Your task to perform on an android device: Go to sound settings Image 0: 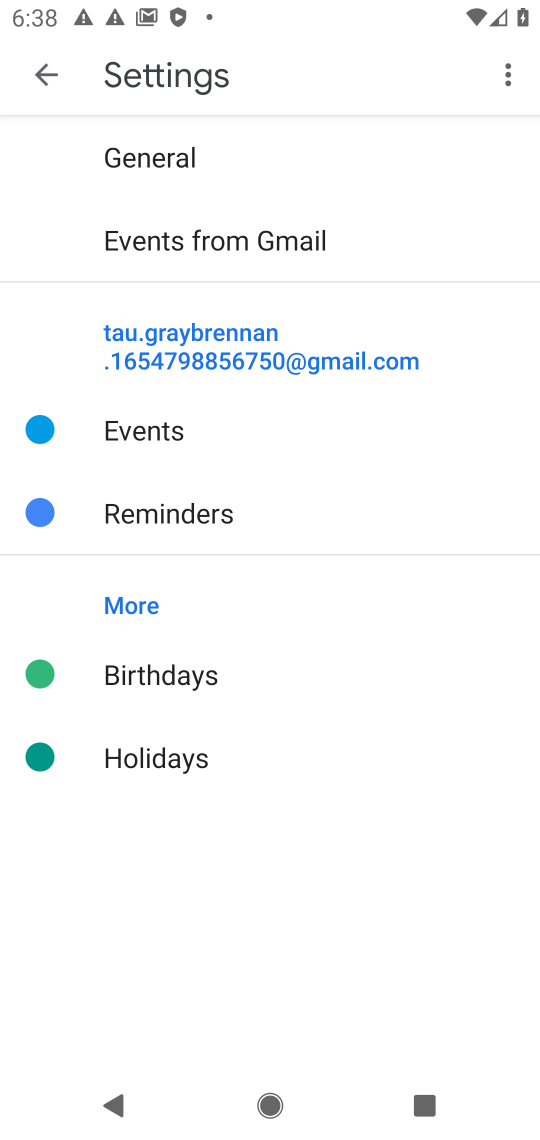
Step 0: press home button
Your task to perform on an android device: Go to sound settings Image 1: 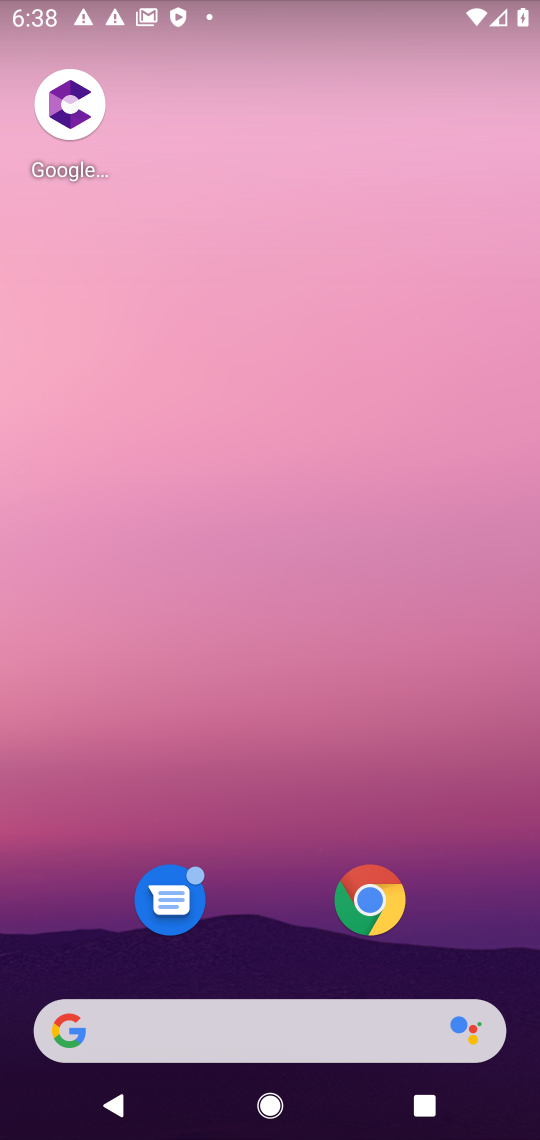
Step 1: drag from (162, 506) to (142, 140)
Your task to perform on an android device: Go to sound settings Image 2: 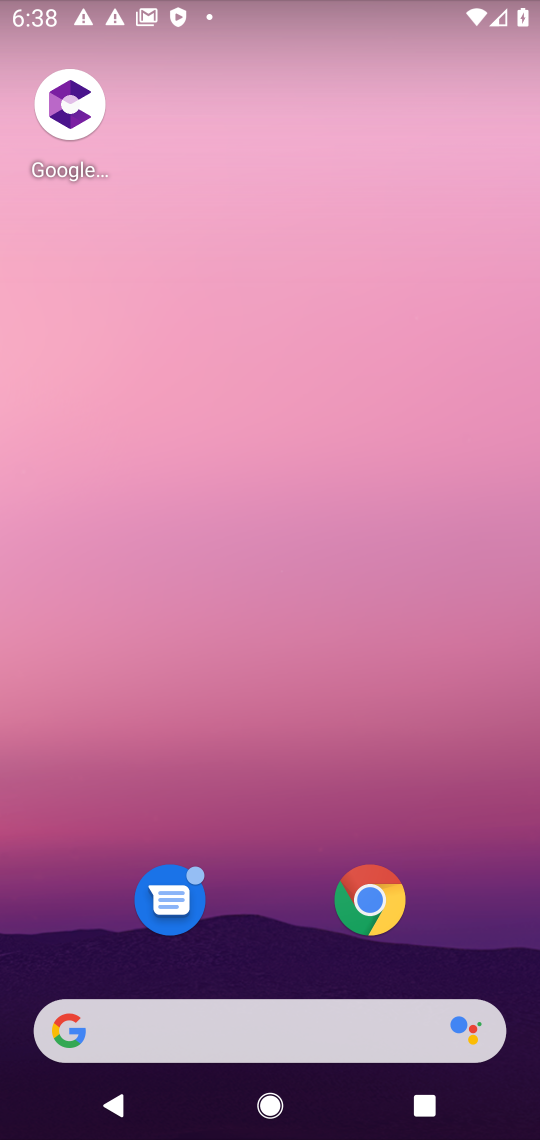
Step 2: drag from (290, 926) to (237, 173)
Your task to perform on an android device: Go to sound settings Image 3: 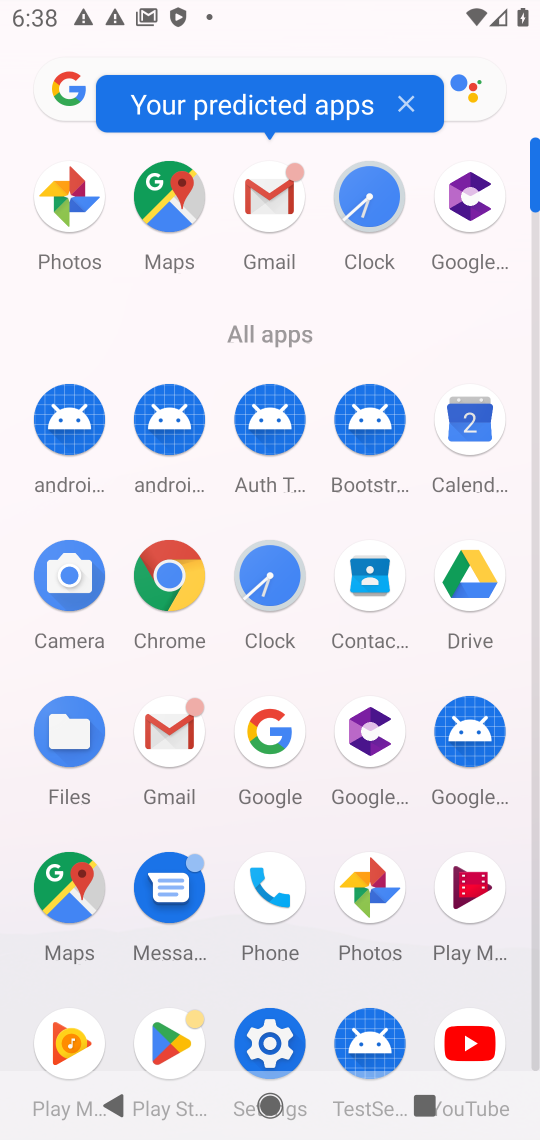
Step 3: click (279, 1042)
Your task to perform on an android device: Go to sound settings Image 4: 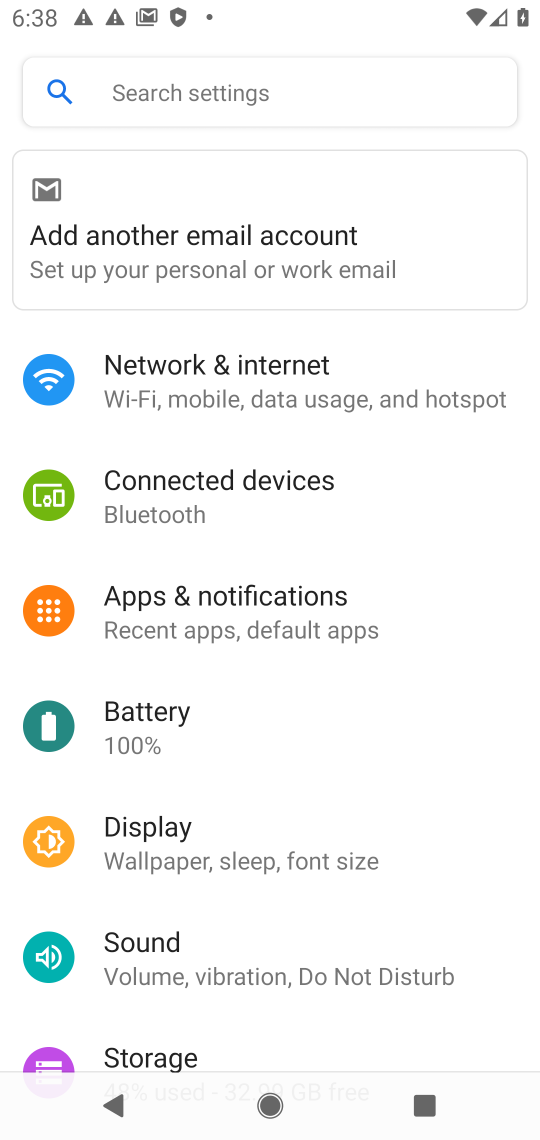
Step 4: click (137, 935)
Your task to perform on an android device: Go to sound settings Image 5: 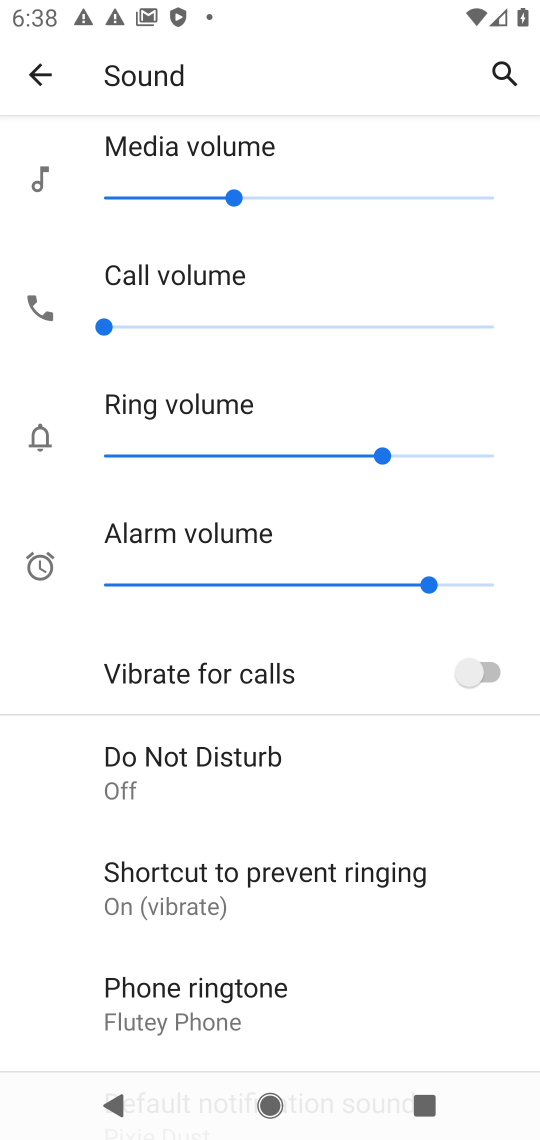
Step 5: task complete